Your task to perform on an android device: Search for pizza restaurants on Maps Image 0: 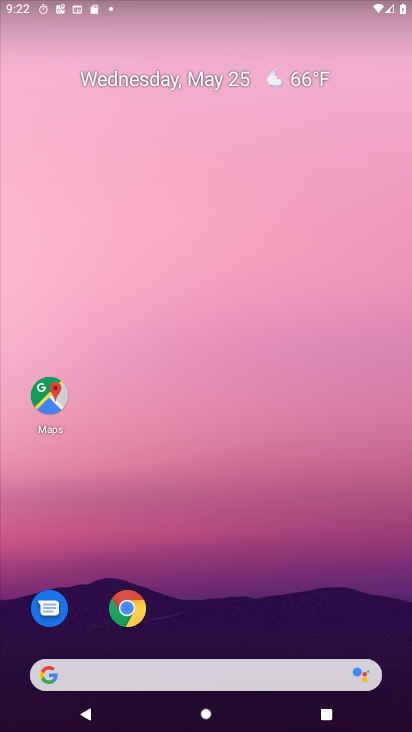
Step 0: drag from (229, 723) to (237, 70)
Your task to perform on an android device: Search for pizza restaurants on Maps Image 1: 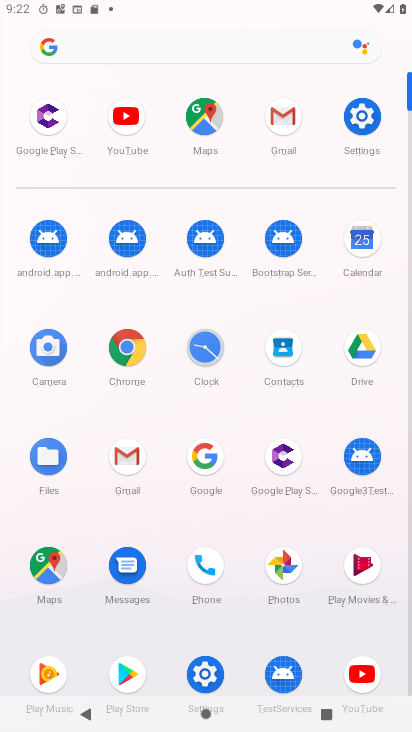
Step 1: click (32, 569)
Your task to perform on an android device: Search for pizza restaurants on Maps Image 2: 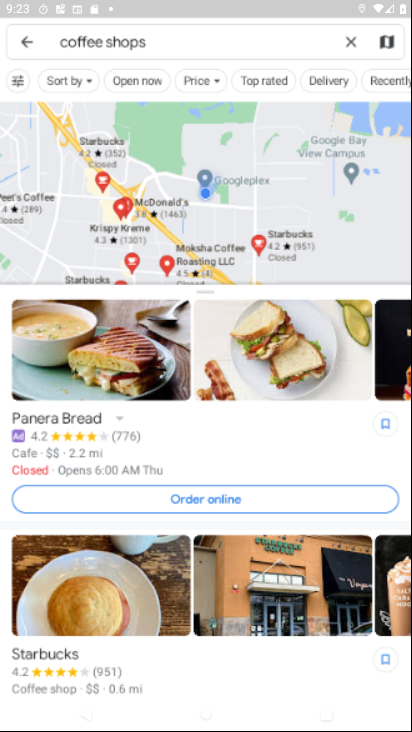
Step 2: click (348, 43)
Your task to perform on an android device: Search for pizza restaurants on Maps Image 3: 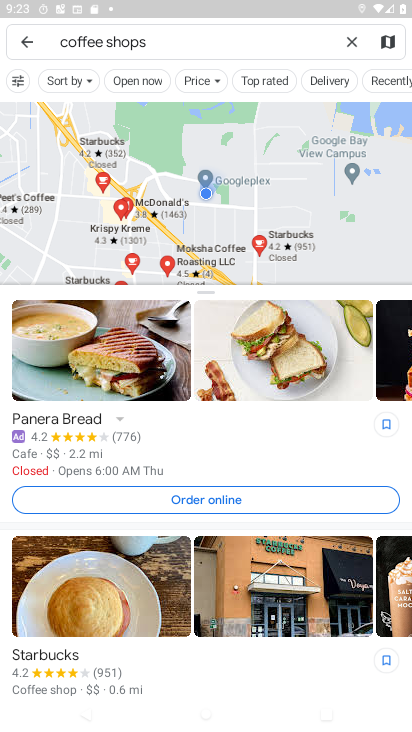
Step 3: click (349, 38)
Your task to perform on an android device: Search for pizza restaurants on Maps Image 4: 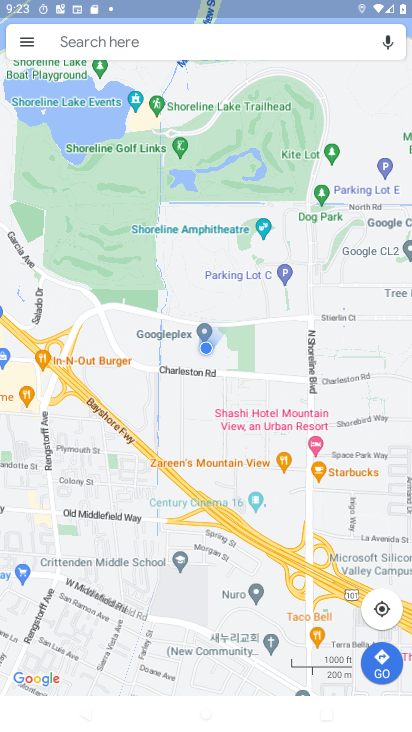
Step 4: click (160, 41)
Your task to perform on an android device: Search for pizza restaurants on Maps Image 5: 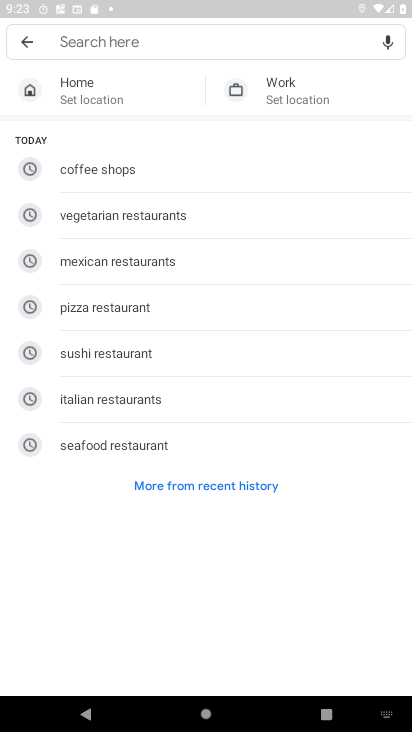
Step 5: type "pizza restaurants"
Your task to perform on an android device: Search for pizza restaurants on Maps Image 6: 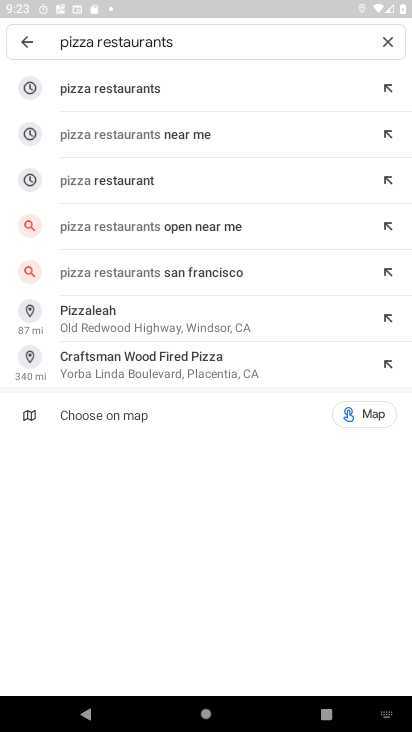
Step 6: click (102, 87)
Your task to perform on an android device: Search for pizza restaurants on Maps Image 7: 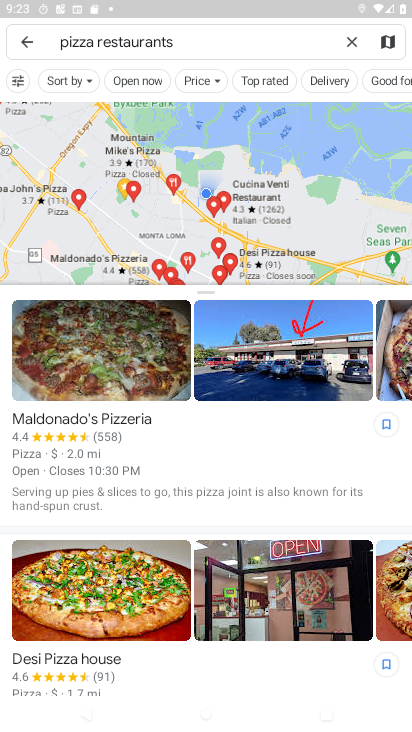
Step 7: task complete